Your task to perform on an android device: turn on sleep mode Image 0: 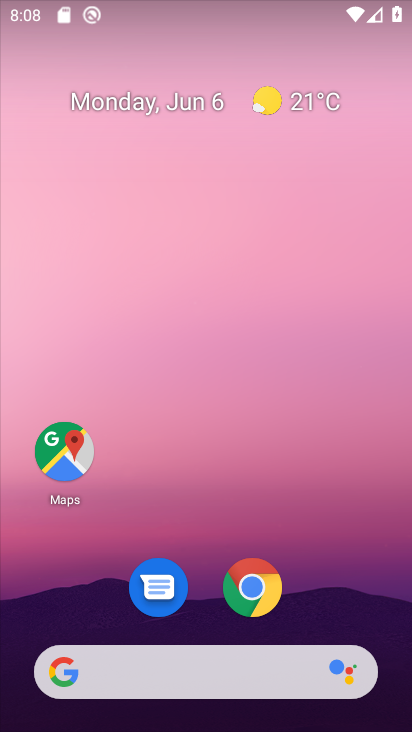
Step 0: drag from (353, 593) to (334, 94)
Your task to perform on an android device: turn on sleep mode Image 1: 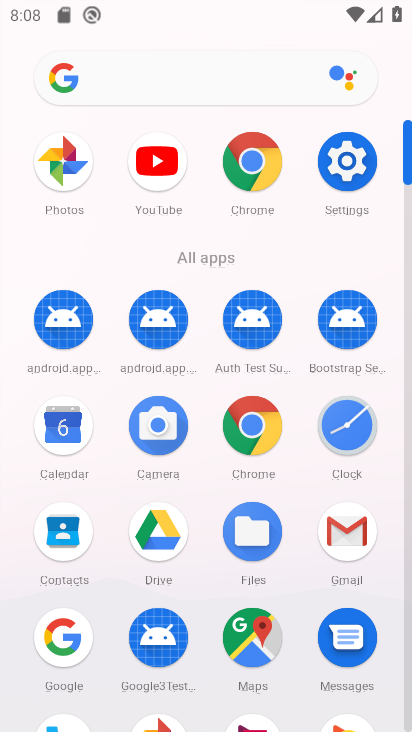
Step 1: click (355, 184)
Your task to perform on an android device: turn on sleep mode Image 2: 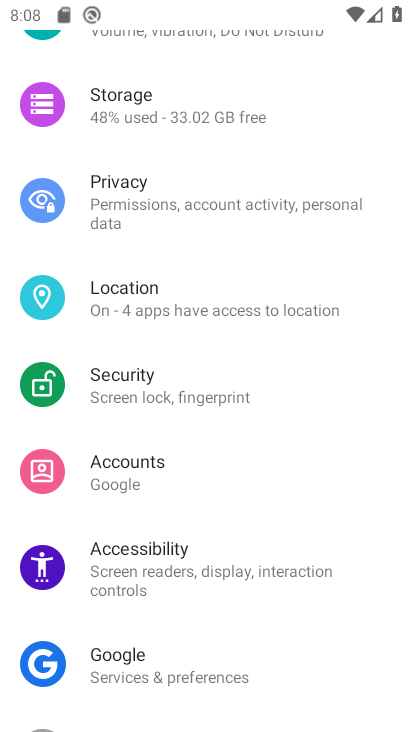
Step 2: drag from (306, 191) to (277, 539)
Your task to perform on an android device: turn on sleep mode Image 3: 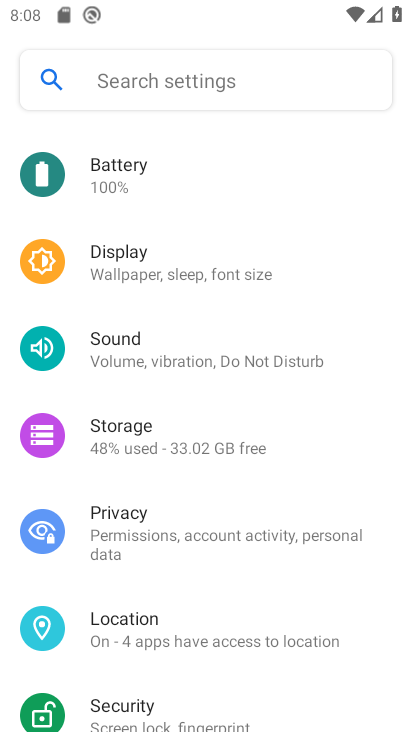
Step 3: drag from (276, 235) to (247, 575)
Your task to perform on an android device: turn on sleep mode Image 4: 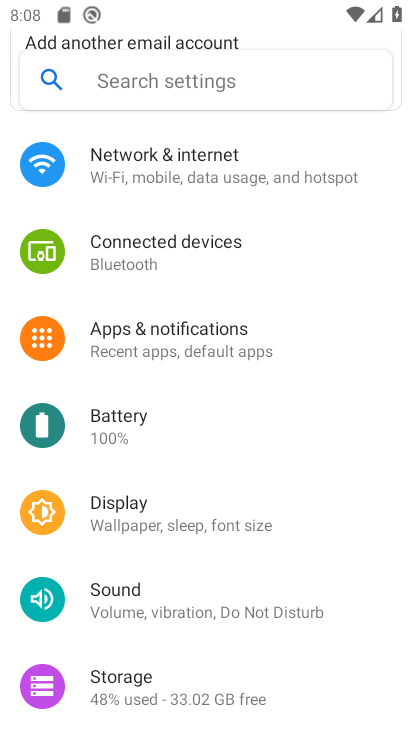
Step 4: click (302, 97)
Your task to perform on an android device: turn on sleep mode Image 5: 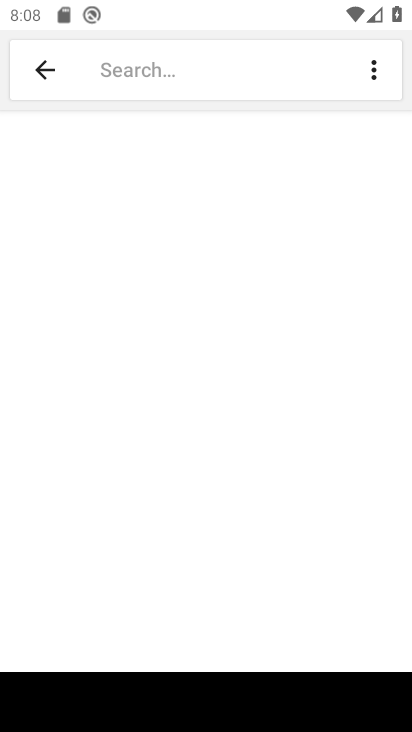
Step 5: type "sleep mode"
Your task to perform on an android device: turn on sleep mode Image 6: 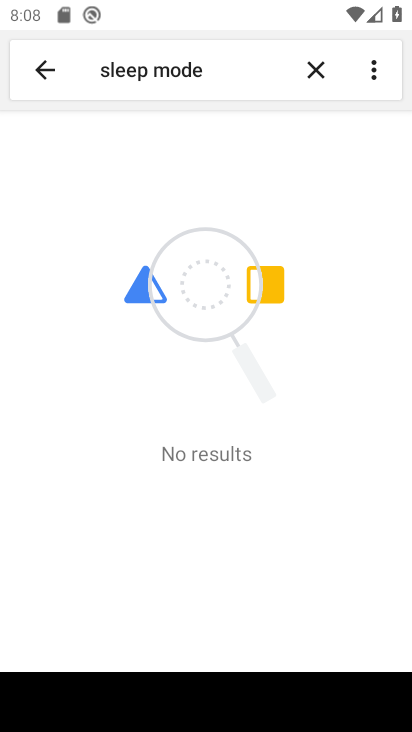
Step 6: task complete